Your task to perform on an android device: visit the assistant section in the google photos Image 0: 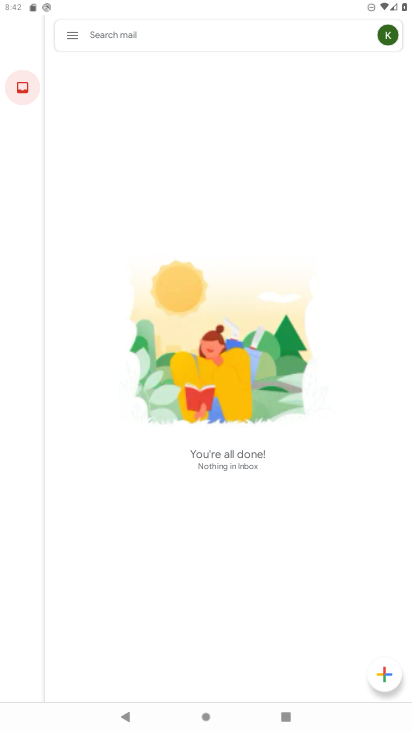
Step 0: press home button
Your task to perform on an android device: visit the assistant section in the google photos Image 1: 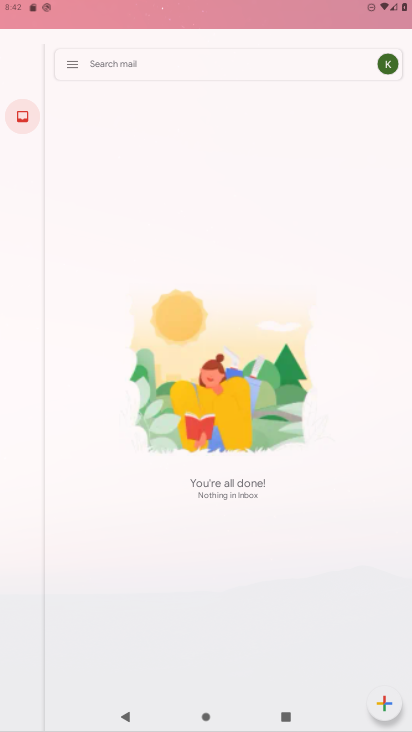
Step 1: drag from (367, 646) to (152, 7)
Your task to perform on an android device: visit the assistant section in the google photos Image 2: 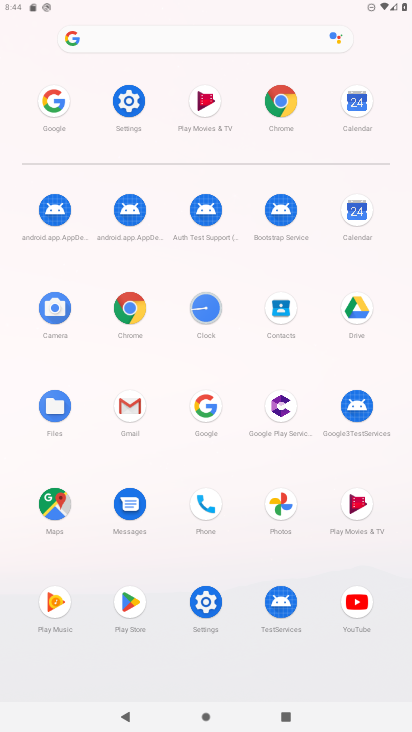
Step 2: click (280, 506)
Your task to perform on an android device: visit the assistant section in the google photos Image 3: 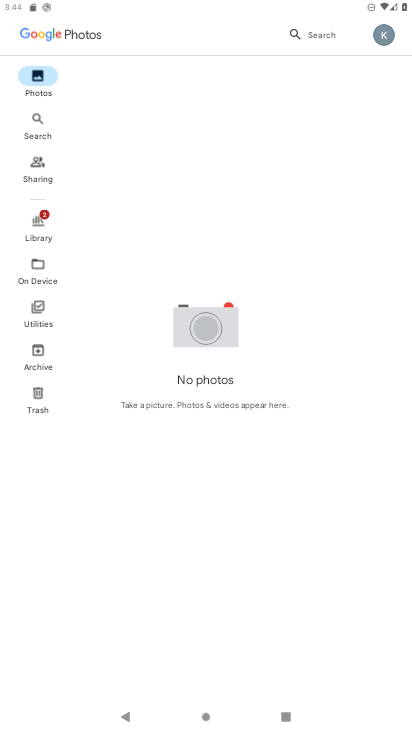
Step 3: task complete